Your task to perform on an android device: see tabs open on other devices in the chrome app Image 0: 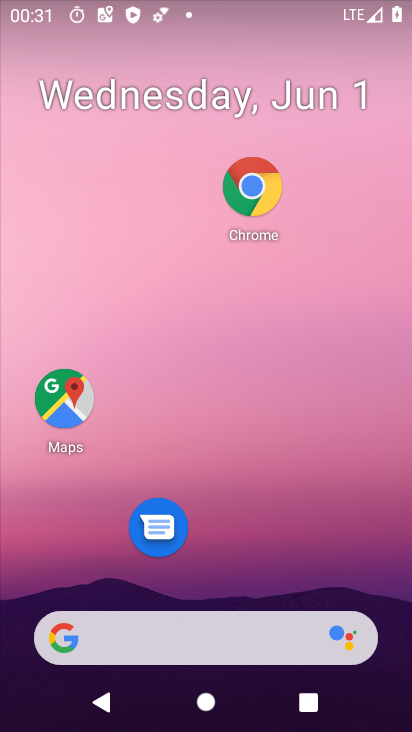
Step 0: drag from (245, 606) to (199, 16)
Your task to perform on an android device: see tabs open on other devices in the chrome app Image 1: 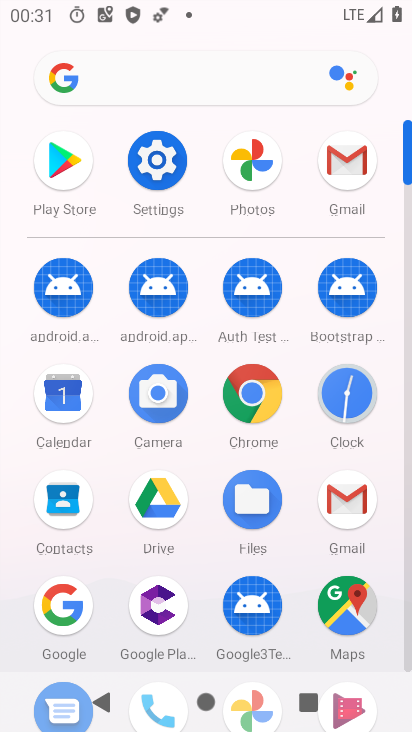
Step 1: click (252, 397)
Your task to perform on an android device: see tabs open on other devices in the chrome app Image 2: 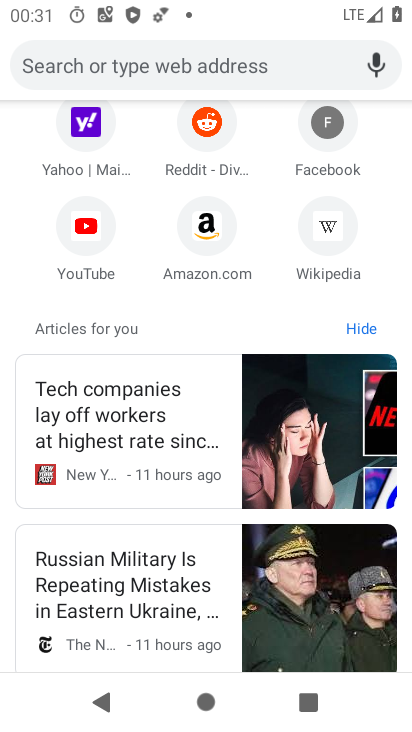
Step 2: drag from (266, 156) to (387, 601)
Your task to perform on an android device: see tabs open on other devices in the chrome app Image 3: 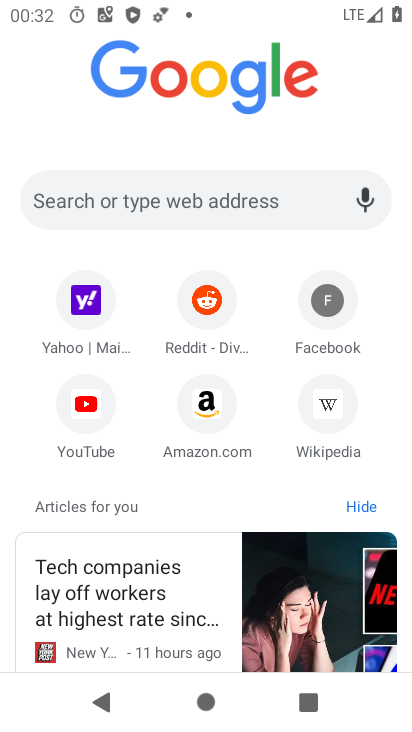
Step 3: drag from (361, 83) to (406, 333)
Your task to perform on an android device: see tabs open on other devices in the chrome app Image 4: 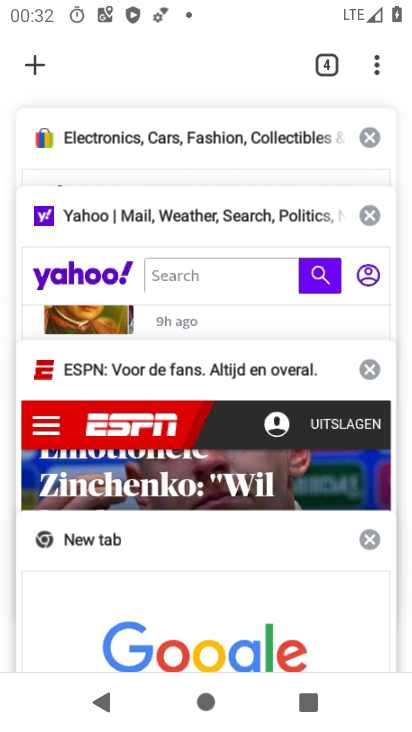
Step 4: click (289, 550)
Your task to perform on an android device: see tabs open on other devices in the chrome app Image 5: 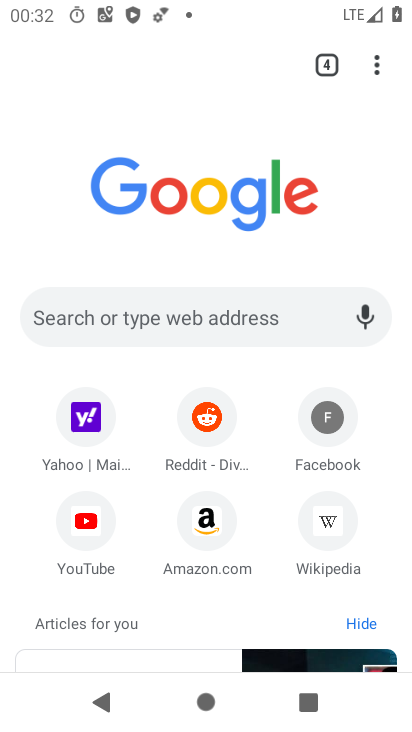
Step 5: click (375, 61)
Your task to perform on an android device: see tabs open on other devices in the chrome app Image 6: 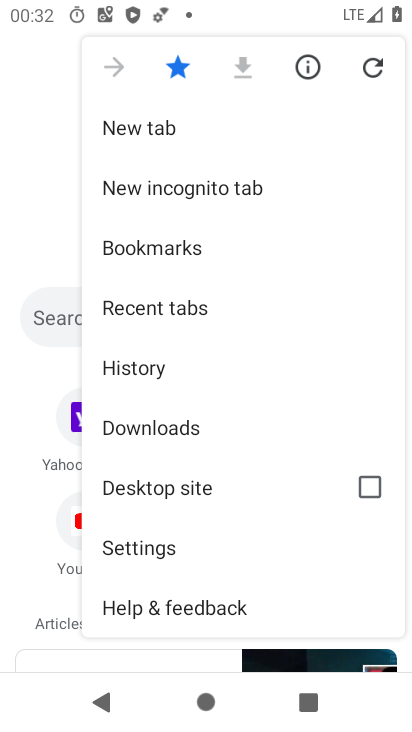
Step 6: click (159, 561)
Your task to perform on an android device: see tabs open on other devices in the chrome app Image 7: 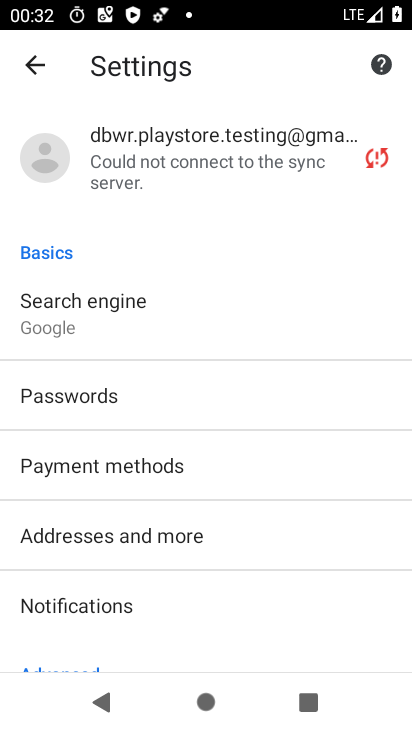
Step 7: click (28, 74)
Your task to perform on an android device: see tabs open on other devices in the chrome app Image 8: 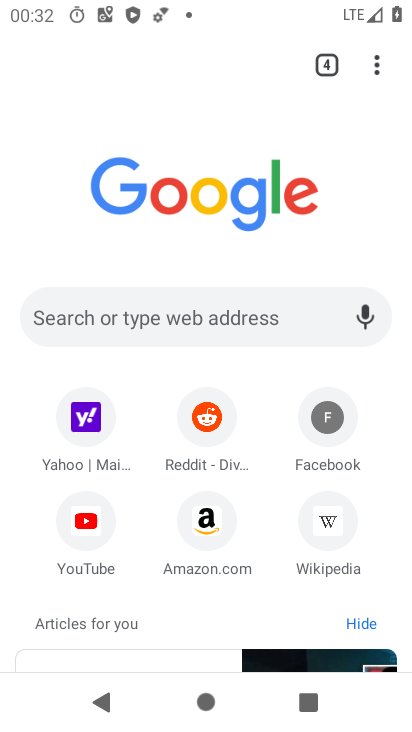
Step 8: click (375, 74)
Your task to perform on an android device: see tabs open on other devices in the chrome app Image 9: 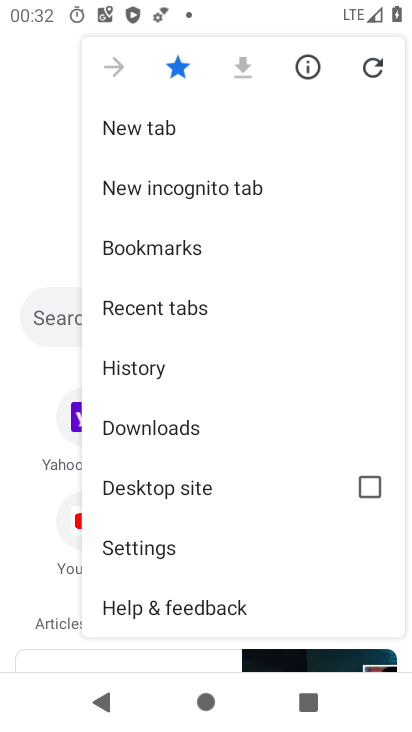
Step 9: click (197, 296)
Your task to perform on an android device: see tabs open on other devices in the chrome app Image 10: 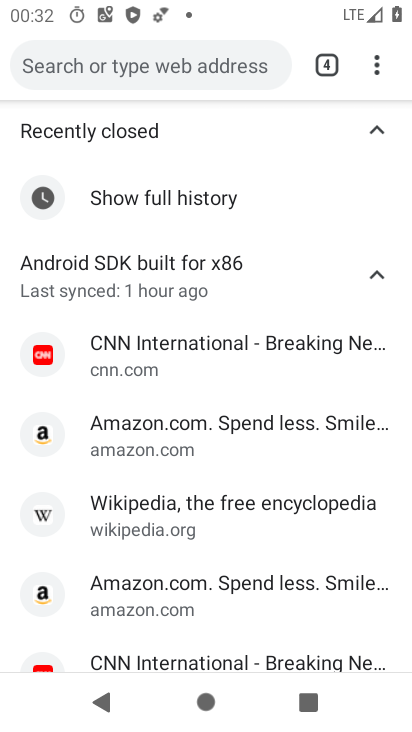
Step 10: click (371, 69)
Your task to perform on an android device: see tabs open on other devices in the chrome app Image 11: 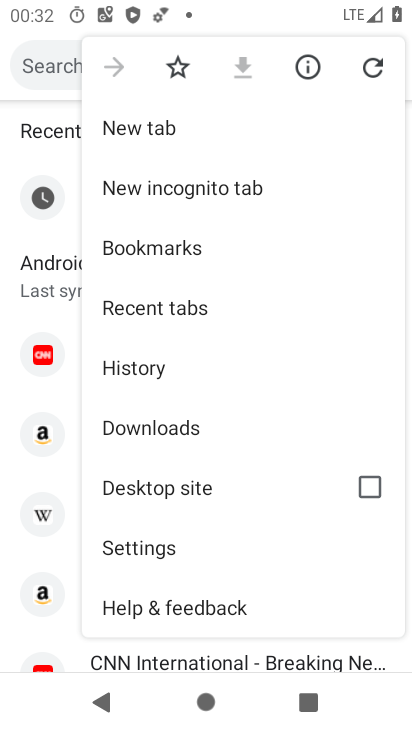
Step 11: click (193, 321)
Your task to perform on an android device: see tabs open on other devices in the chrome app Image 12: 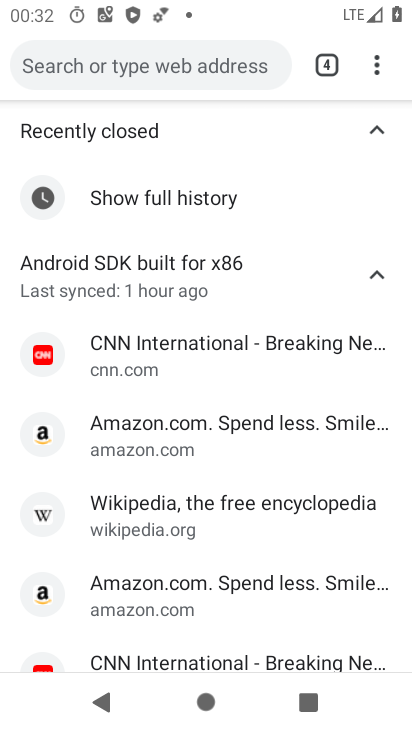
Step 12: task complete